Your task to perform on an android device: Go to Yahoo.com Image 0: 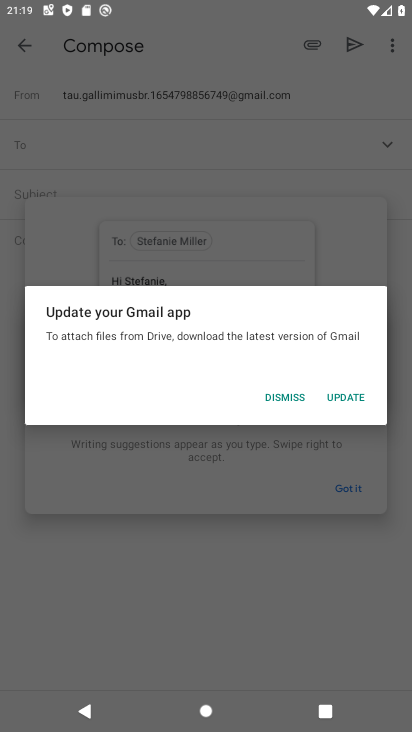
Step 0: press home button
Your task to perform on an android device: Go to Yahoo.com Image 1: 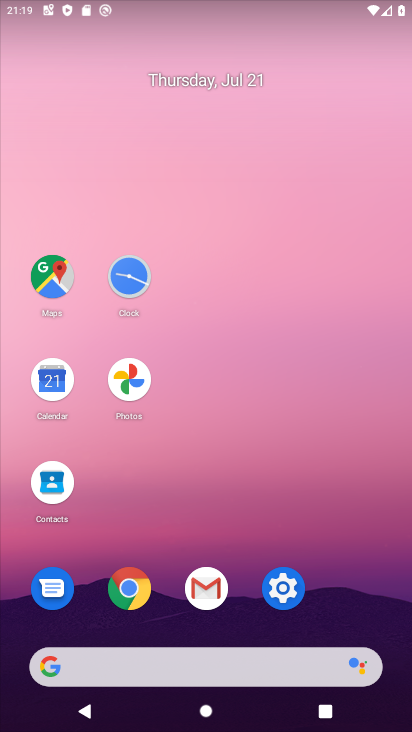
Step 1: click (131, 584)
Your task to perform on an android device: Go to Yahoo.com Image 2: 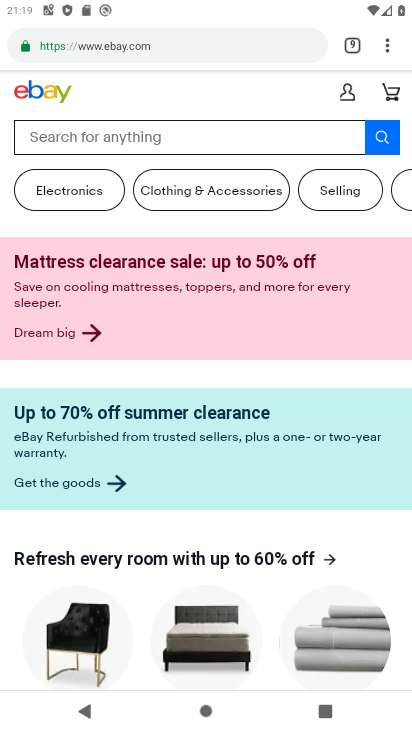
Step 2: click (383, 48)
Your task to perform on an android device: Go to Yahoo.com Image 3: 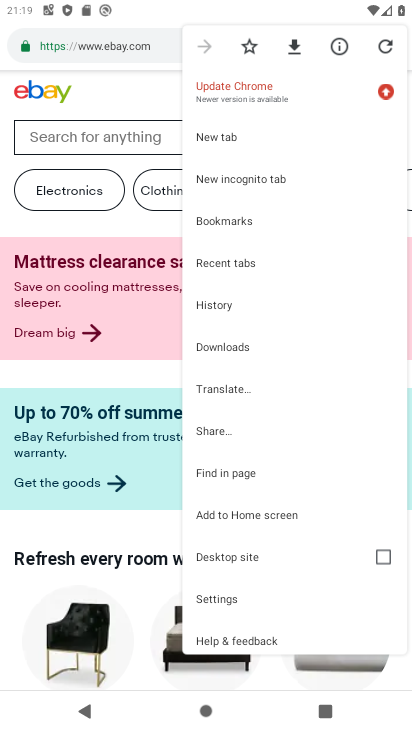
Step 3: click (221, 130)
Your task to perform on an android device: Go to Yahoo.com Image 4: 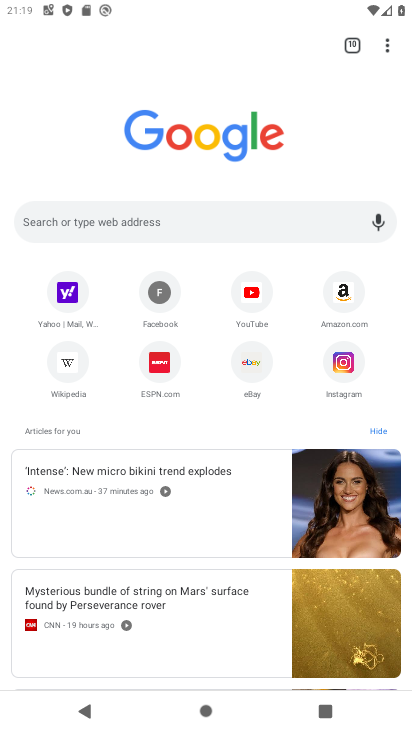
Step 4: click (59, 296)
Your task to perform on an android device: Go to Yahoo.com Image 5: 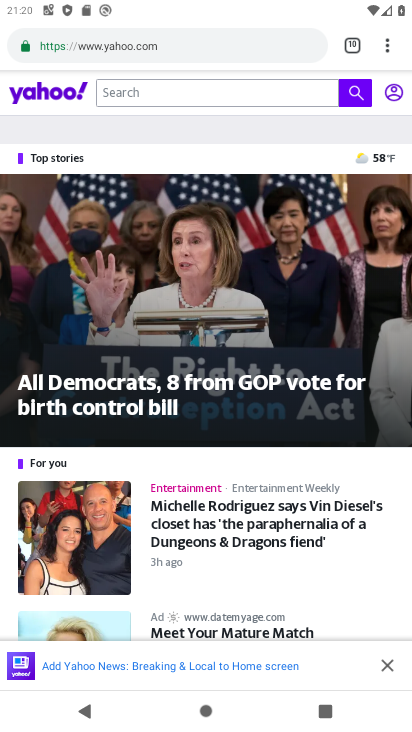
Step 5: task complete